Your task to perform on an android device: empty trash in google photos Image 0: 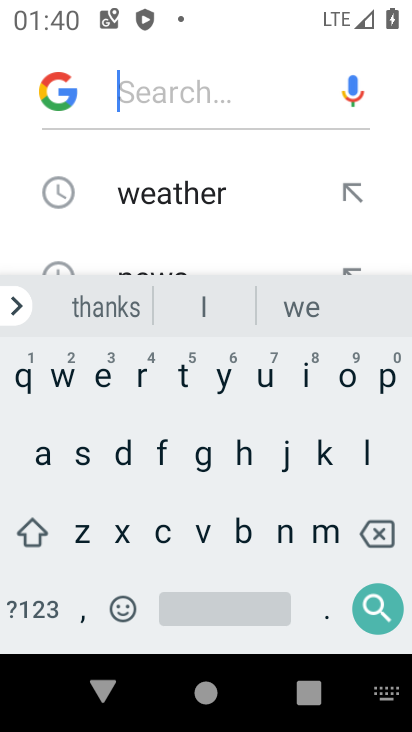
Step 0: press home button
Your task to perform on an android device: empty trash in google photos Image 1: 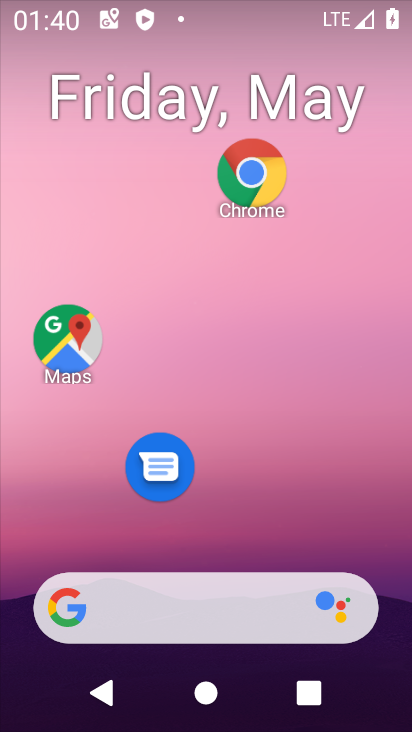
Step 1: drag from (255, 662) to (161, 66)
Your task to perform on an android device: empty trash in google photos Image 2: 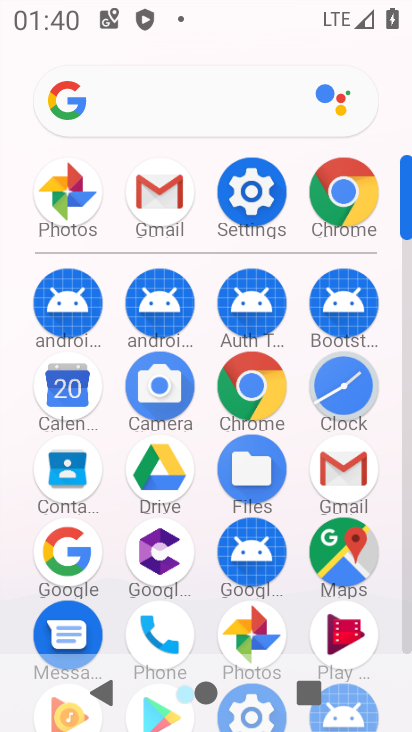
Step 2: click (254, 626)
Your task to perform on an android device: empty trash in google photos Image 3: 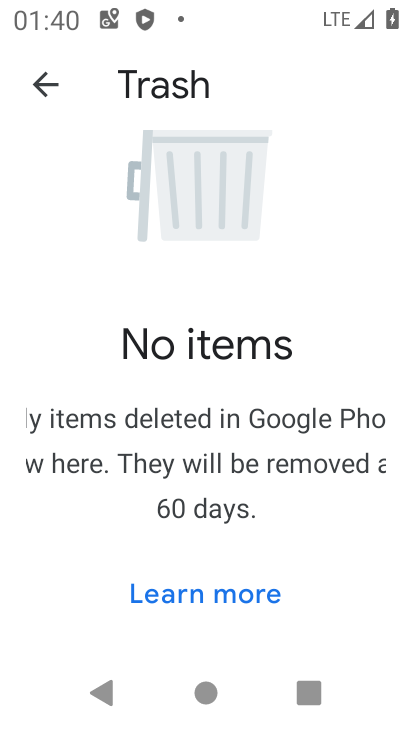
Step 3: click (50, 83)
Your task to perform on an android device: empty trash in google photos Image 4: 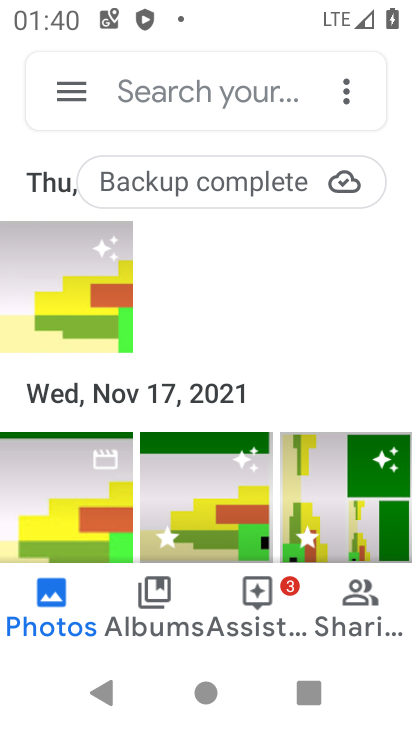
Step 4: click (80, 102)
Your task to perform on an android device: empty trash in google photos Image 5: 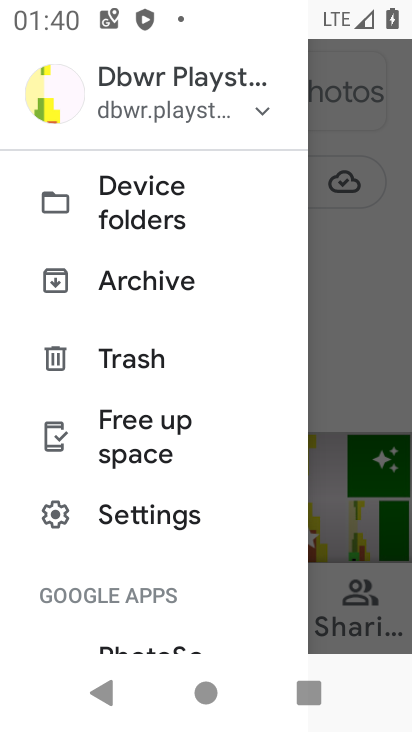
Step 5: click (149, 361)
Your task to perform on an android device: empty trash in google photos Image 6: 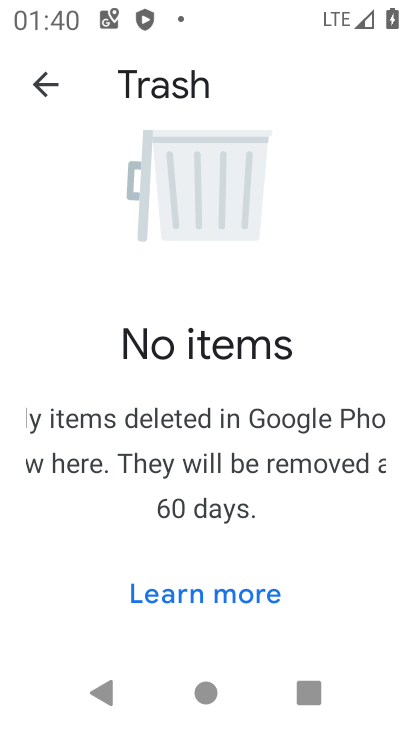
Step 6: task complete